Your task to perform on an android device: Search for sushi restaurants on Maps Image 0: 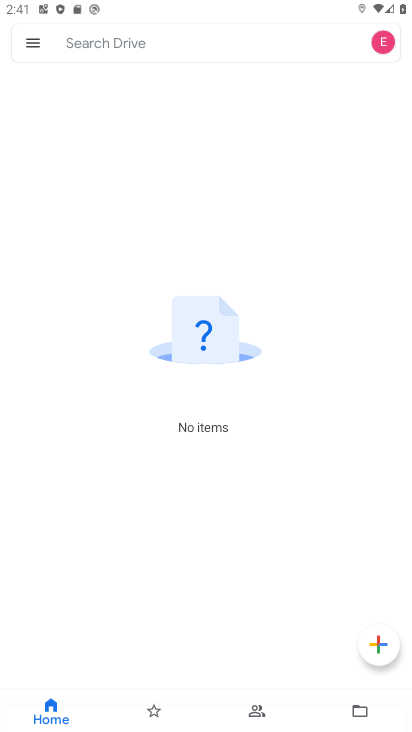
Step 0: press home button
Your task to perform on an android device: Search for sushi restaurants on Maps Image 1: 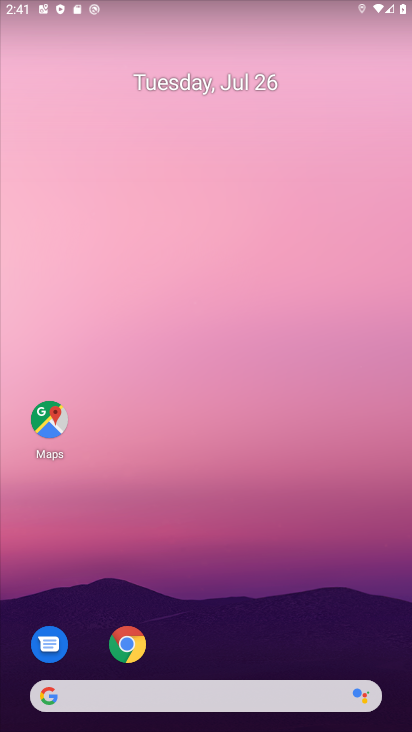
Step 1: click (57, 422)
Your task to perform on an android device: Search for sushi restaurants on Maps Image 2: 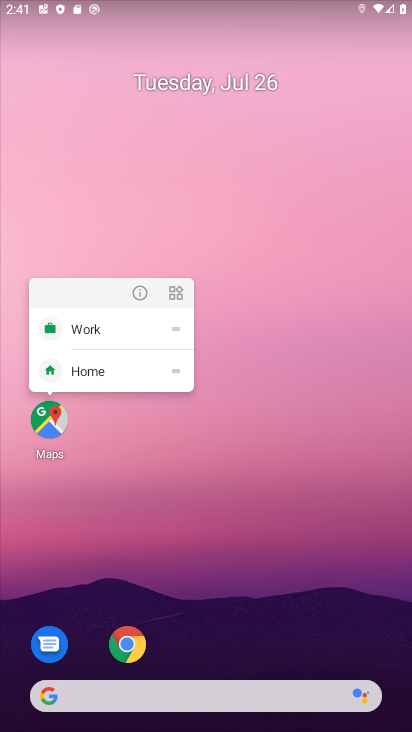
Step 2: click (40, 429)
Your task to perform on an android device: Search for sushi restaurants on Maps Image 3: 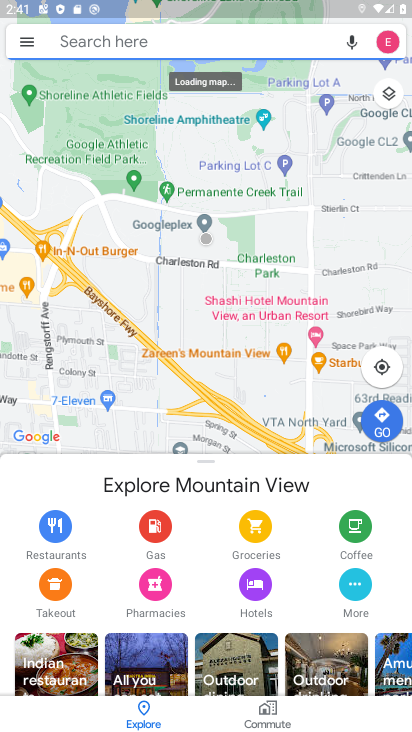
Step 3: click (176, 39)
Your task to perform on an android device: Search for sushi restaurants on Maps Image 4: 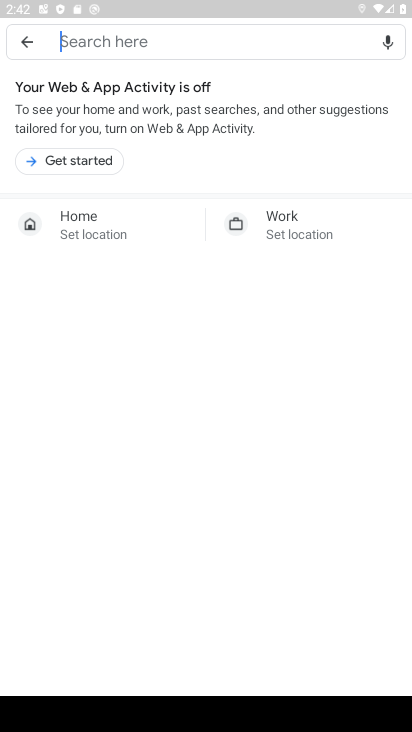
Step 4: type " sushi restaurants"
Your task to perform on an android device: Search for sushi restaurants on Maps Image 5: 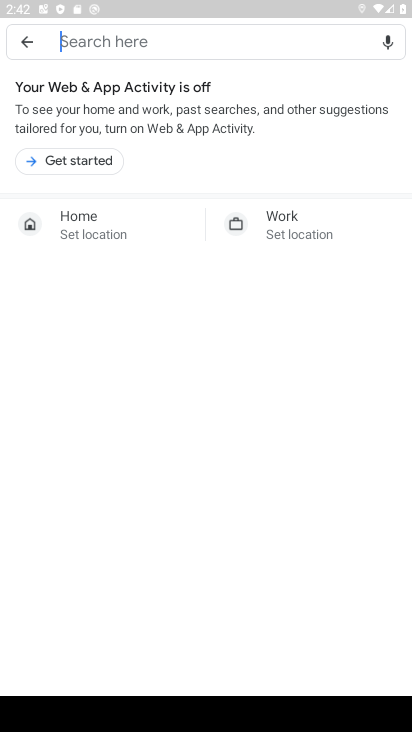
Step 5: click (101, 39)
Your task to perform on an android device: Search for sushi restaurants on Maps Image 6: 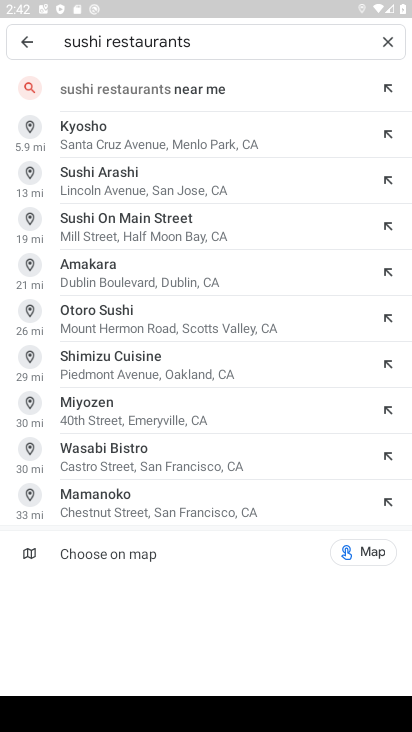
Step 6: press enter
Your task to perform on an android device: Search for sushi restaurants on Maps Image 7: 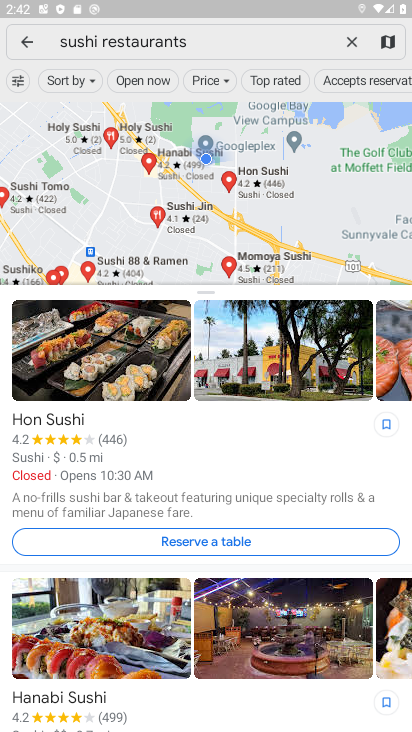
Step 7: task complete